Your task to perform on an android device: turn vacation reply on in the gmail app Image 0: 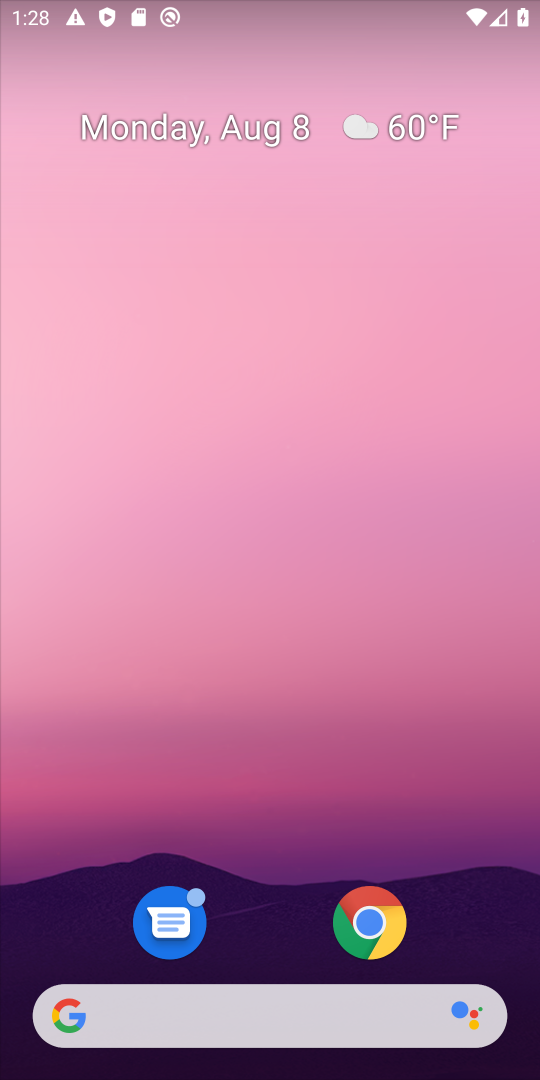
Step 0: drag from (481, 889) to (463, 121)
Your task to perform on an android device: turn vacation reply on in the gmail app Image 1: 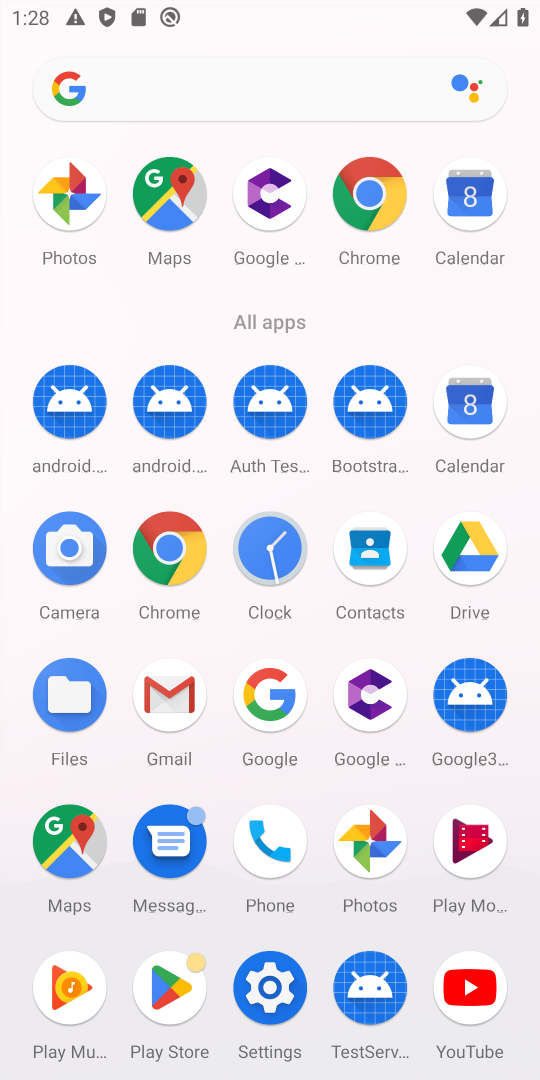
Step 1: click (158, 687)
Your task to perform on an android device: turn vacation reply on in the gmail app Image 2: 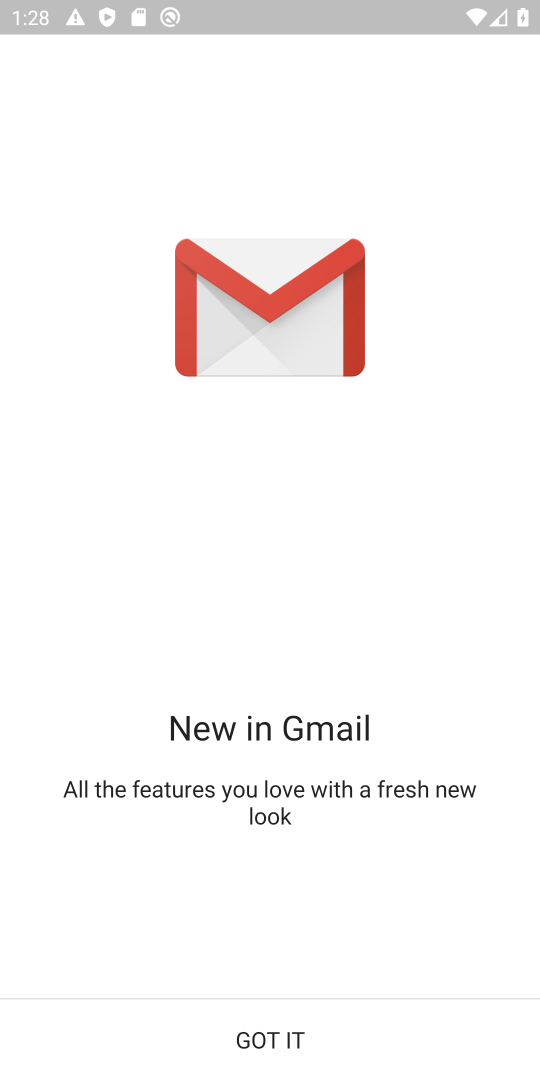
Step 2: click (269, 1026)
Your task to perform on an android device: turn vacation reply on in the gmail app Image 3: 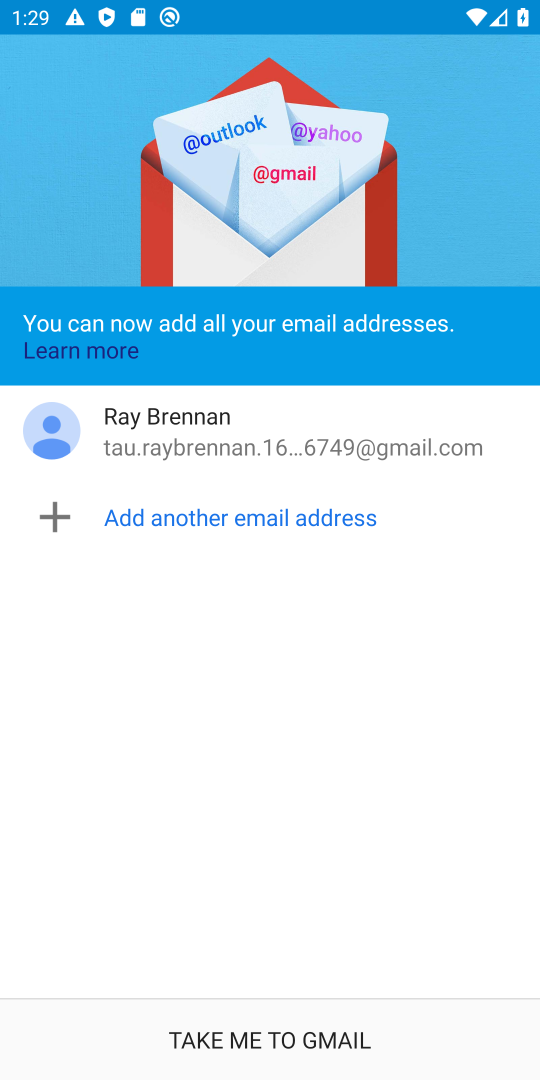
Step 3: click (220, 1046)
Your task to perform on an android device: turn vacation reply on in the gmail app Image 4: 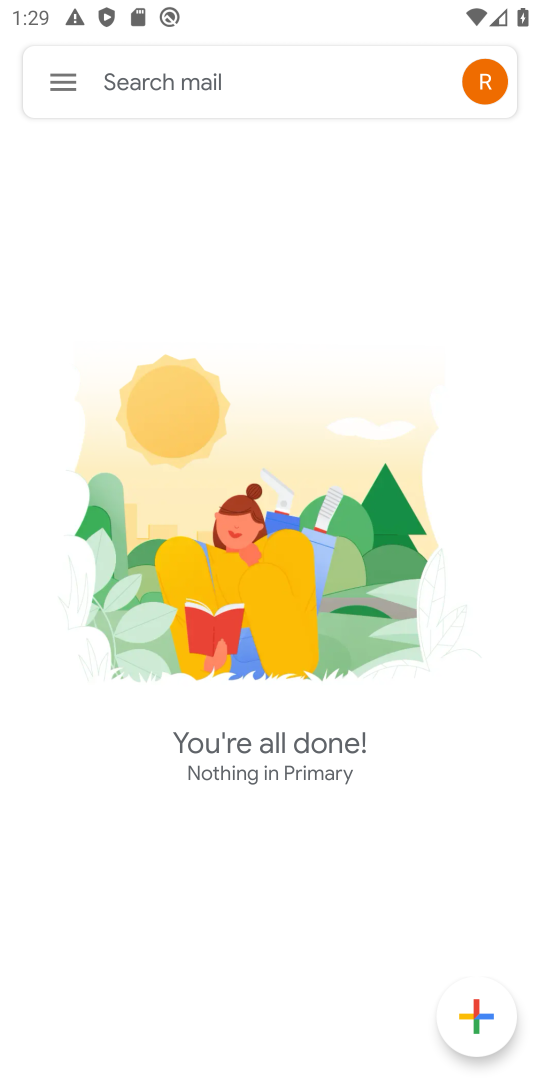
Step 4: click (57, 66)
Your task to perform on an android device: turn vacation reply on in the gmail app Image 5: 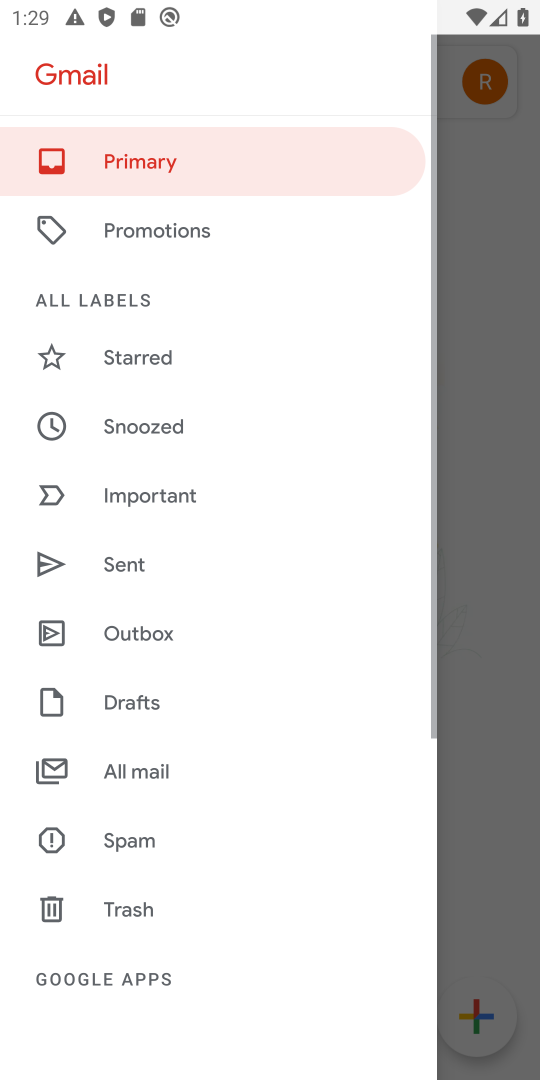
Step 5: drag from (138, 967) to (242, 246)
Your task to perform on an android device: turn vacation reply on in the gmail app Image 6: 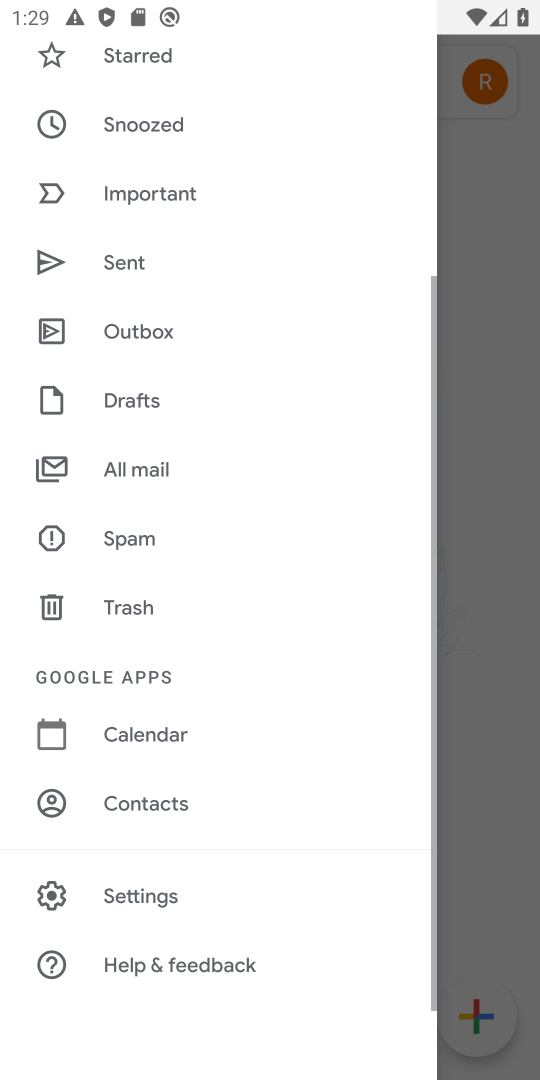
Step 6: click (139, 903)
Your task to perform on an android device: turn vacation reply on in the gmail app Image 7: 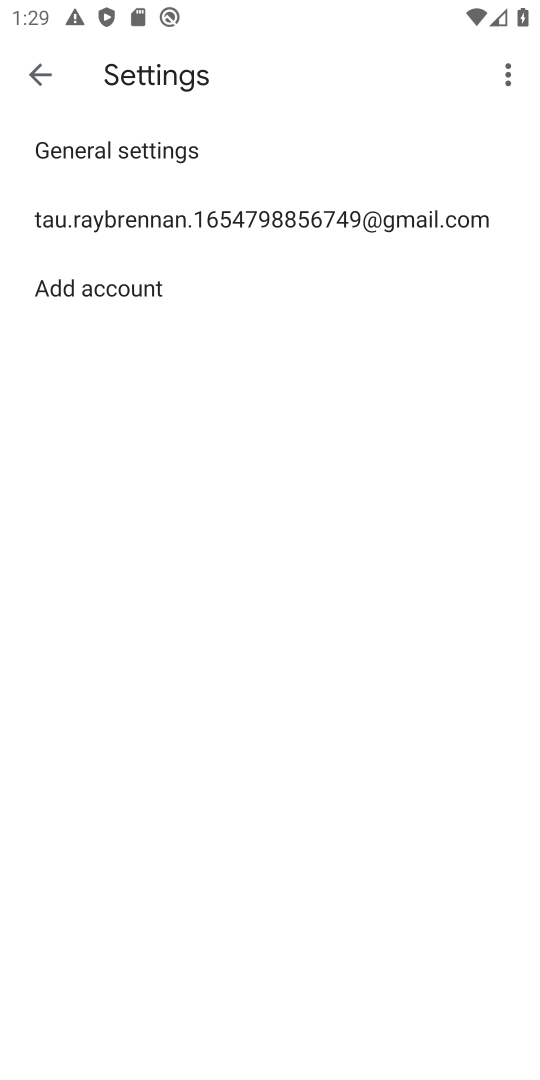
Step 7: click (116, 220)
Your task to perform on an android device: turn vacation reply on in the gmail app Image 8: 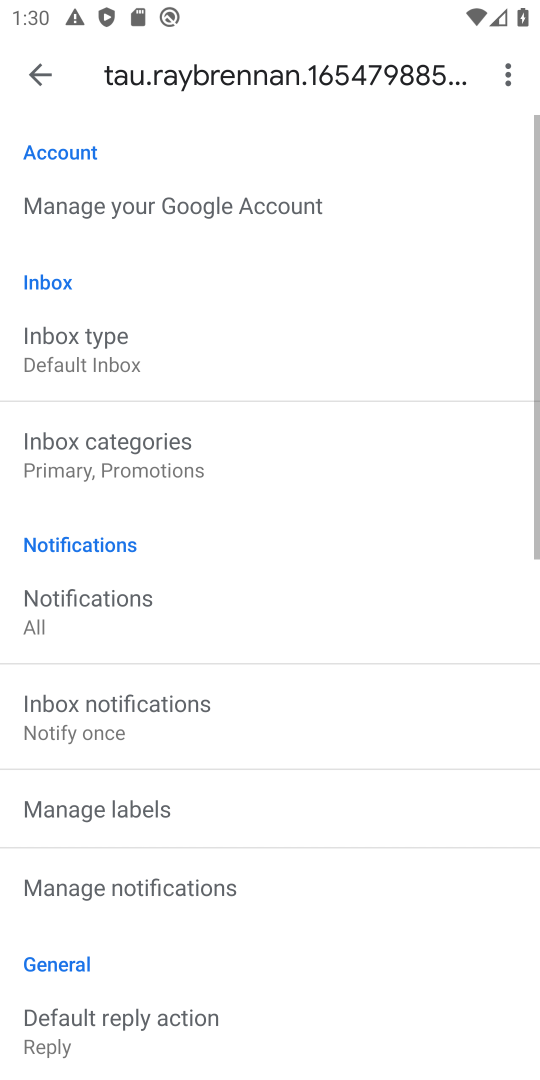
Step 8: drag from (237, 834) to (330, 35)
Your task to perform on an android device: turn vacation reply on in the gmail app Image 9: 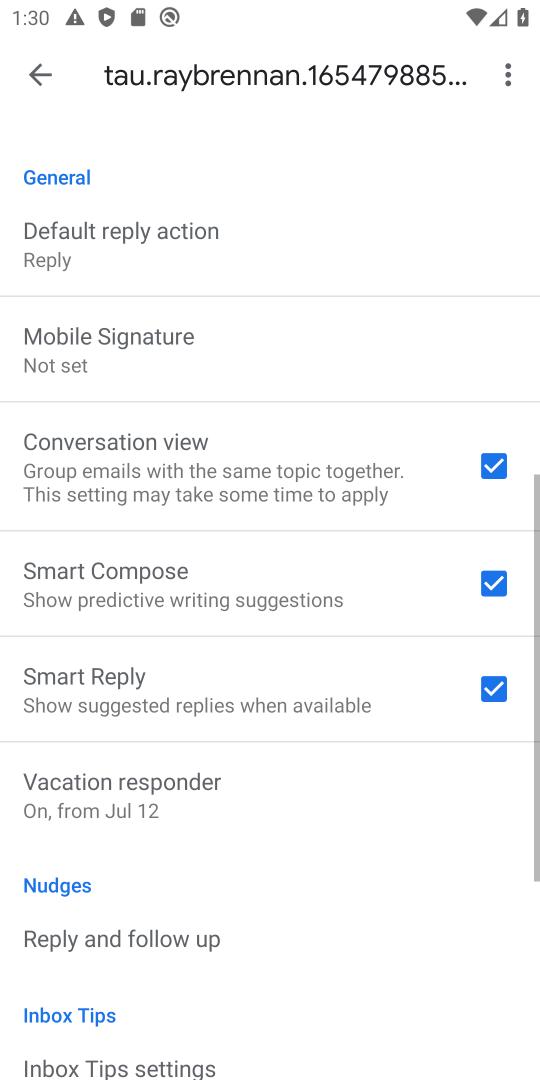
Step 9: click (170, 764)
Your task to perform on an android device: turn vacation reply on in the gmail app Image 10: 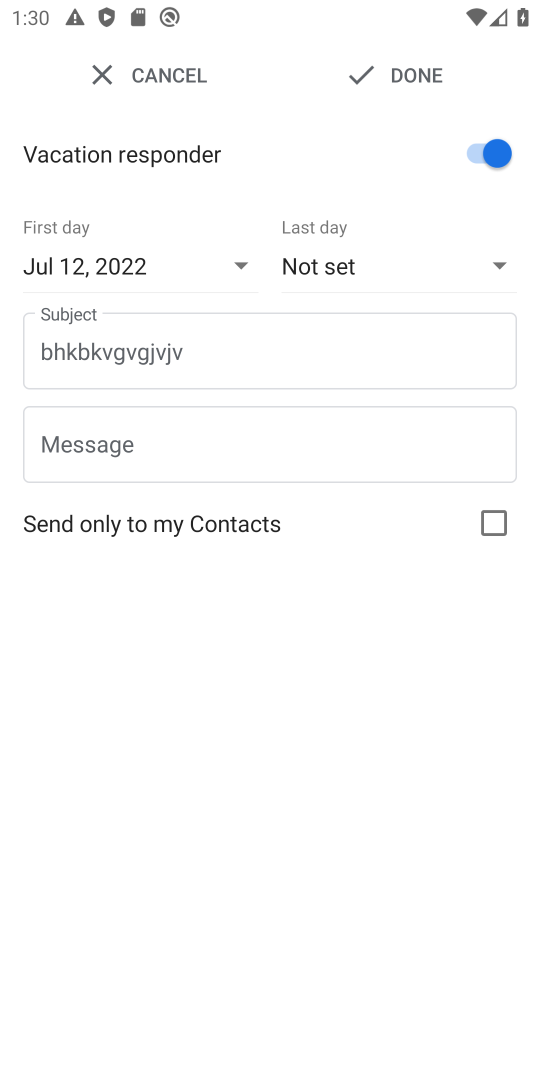
Step 10: task complete